Your task to perform on an android device: create a new album in the google photos Image 0: 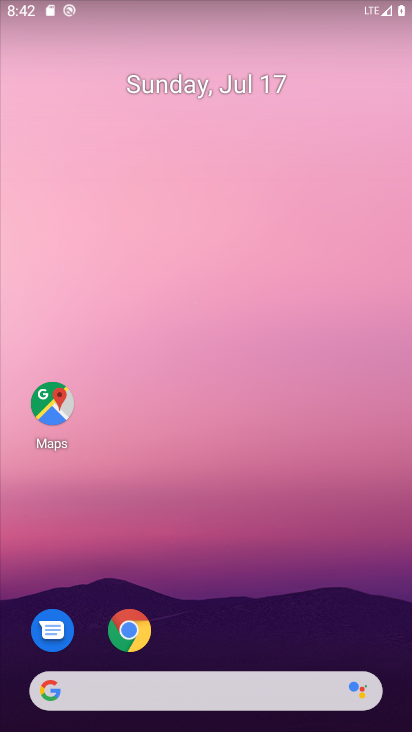
Step 0: drag from (224, 590) to (252, 130)
Your task to perform on an android device: create a new album in the google photos Image 1: 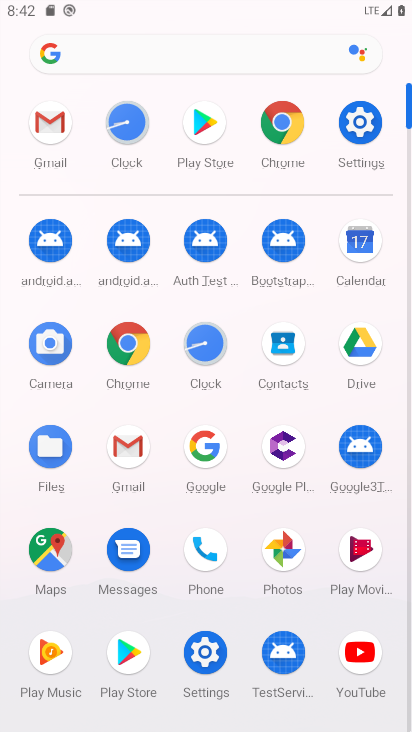
Step 1: click (272, 556)
Your task to perform on an android device: create a new album in the google photos Image 2: 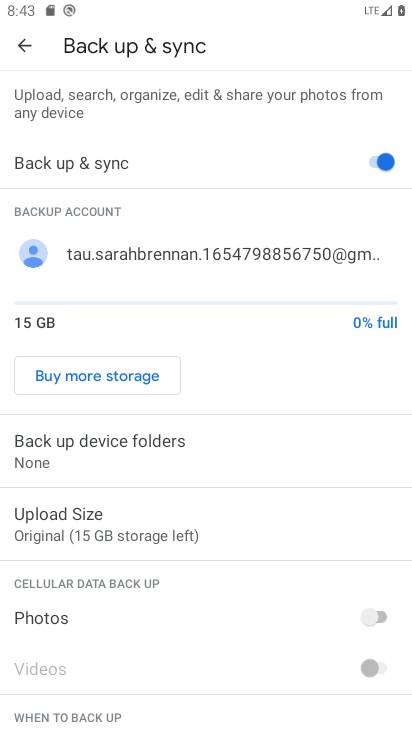
Step 2: click (21, 45)
Your task to perform on an android device: create a new album in the google photos Image 3: 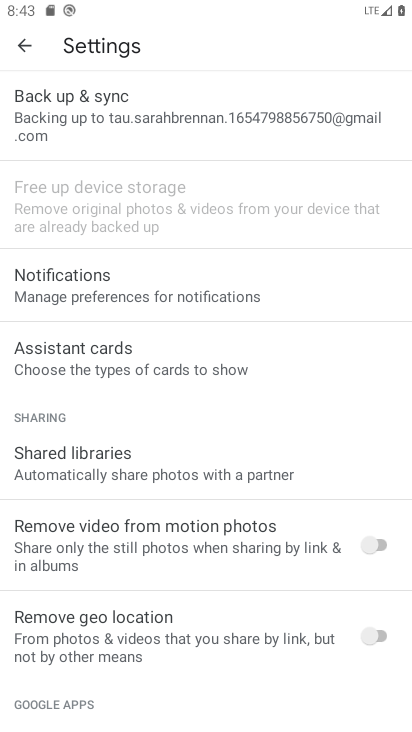
Step 3: click (31, 47)
Your task to perform on an android device: create a new album in the google photos Image 4: 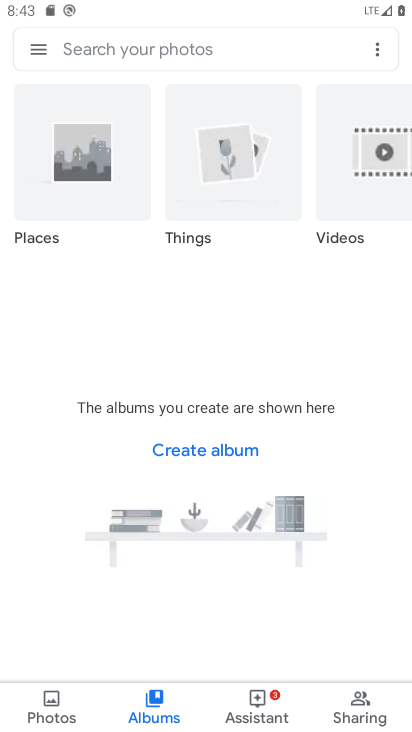
Step 4: click (203, 449)
Your task to perform on an android device: create a new album in the google photos Image 5: 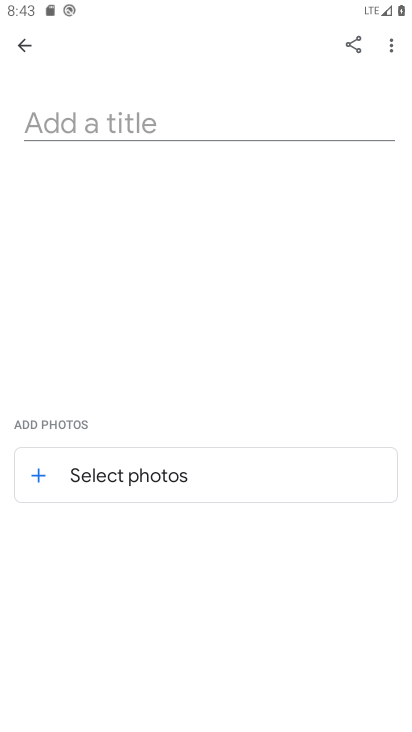
Step 5: click (33, 473)
Your task to perform on an android device: create a new album in the google photos Image 6: 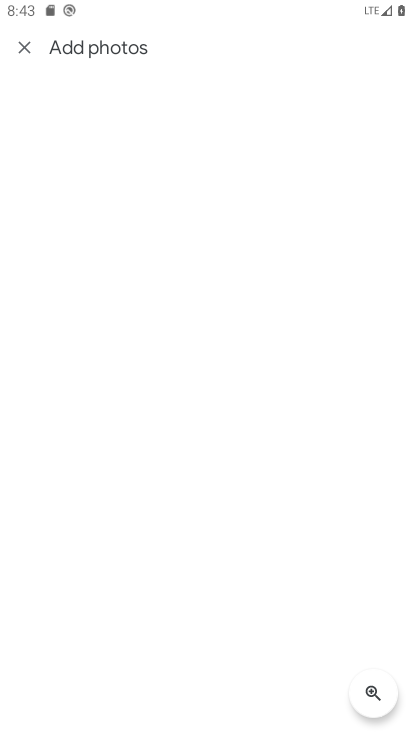
Step 6: task complete